Your task to perform on an android device: What's the latest video from IGN? Image 0: 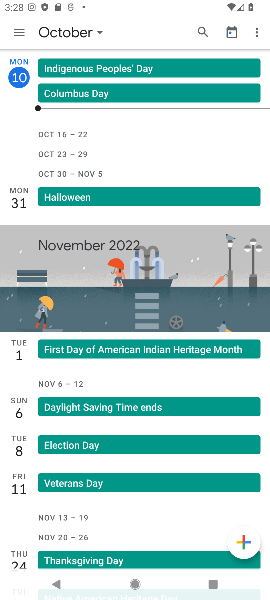
Step 0: press home button
Your task to perform on an android device: What's the latest video from IGN? Image 1: 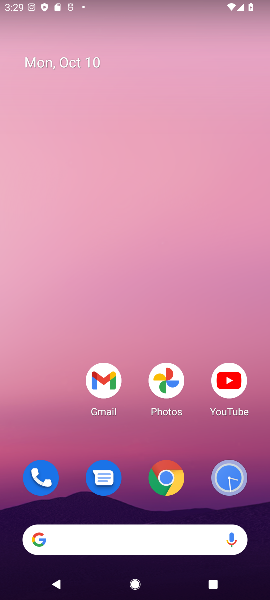
Step 1: click (173, 486)
Your task to perform on an android device: What's the latest video from IGN? Image 2: 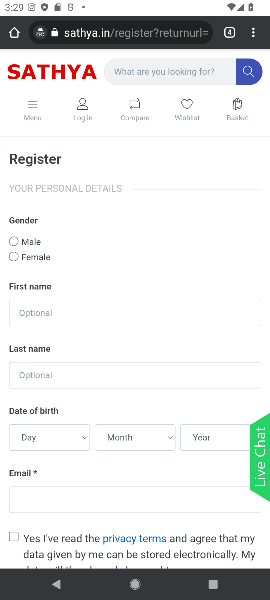
Step 2: click (134, 32)
Your task to perform on an android device: What's the latest video from IGN? Image 3: 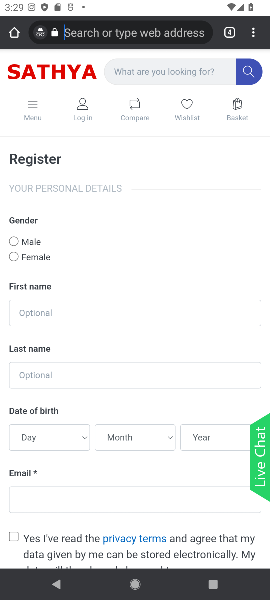
Step 3: click (134, 32)
Your task to perform on an android device: What's the latest video from IGN? Image 4: 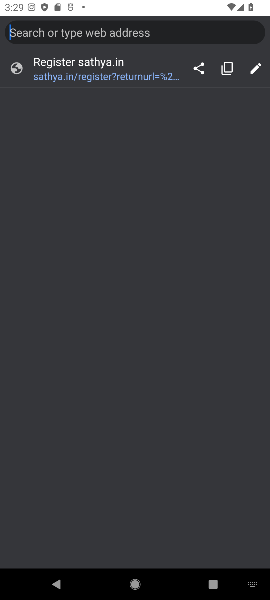
Step 4: type "What's the latest video from IGN?"
Your task to perform on an android device: What's the latest video from IGN? Image 5: 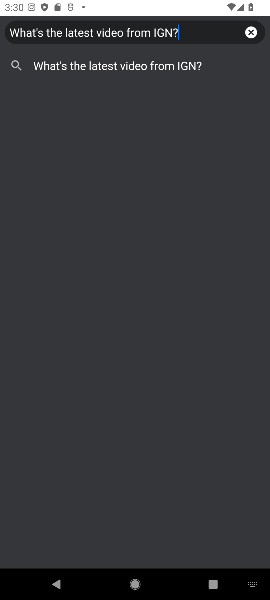
Step 5: click (118, 62)
Your task to perform on an android device: What's the latest video from IGN? Image 6: 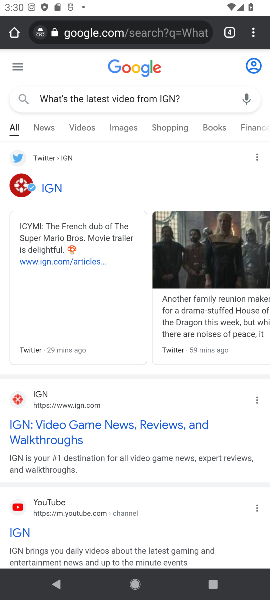
Step 6: click (79, 124)
Your task to perform on an android device: What's the latest video from IGN? Image 7: 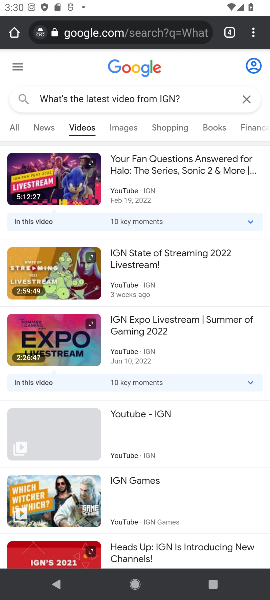
Step 7: click (57, 274)
Your task to perform on an android device: What's the latest video from IGN? Image 8: 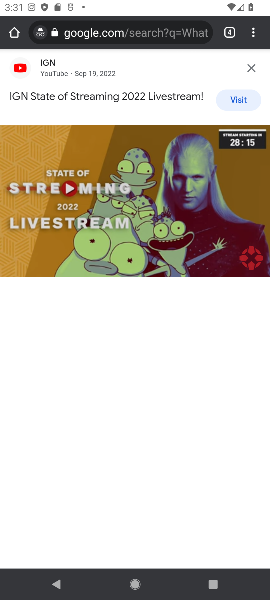
Step 8: task complete